Your task to perform on an android device: Search for Mexican restaurants on Maps Image 0: 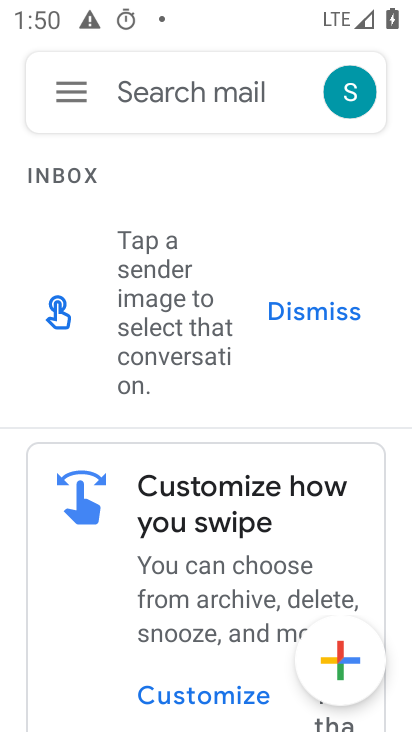
Step 0: press home button
Your task to perform on an android device: Search for Mexican restaurants on Maps Image 1: 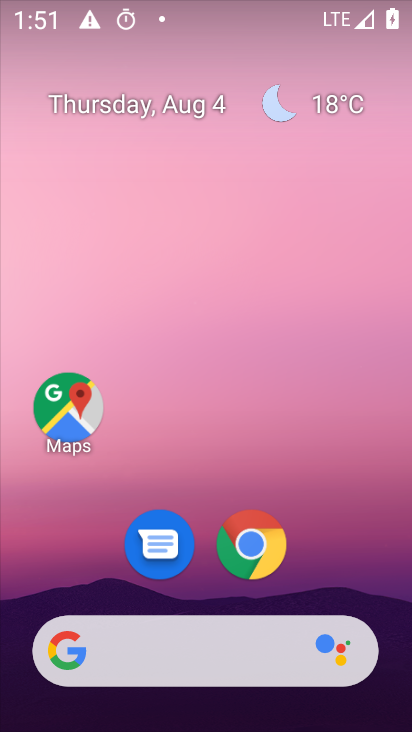
Step 1: click (43, 416)
Your task to perform on an android device: Search for Mexican restaurants on Maps Image 2: 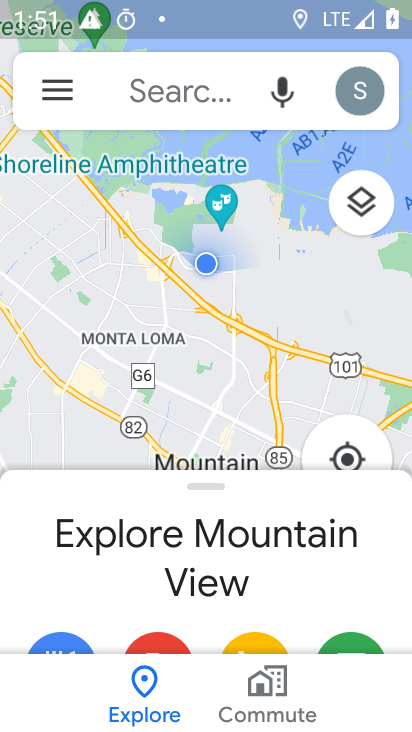
Step 2: click (177, 96)
Your task to perform on an android device: Search for Mexican restaurants on Maps Image 3: 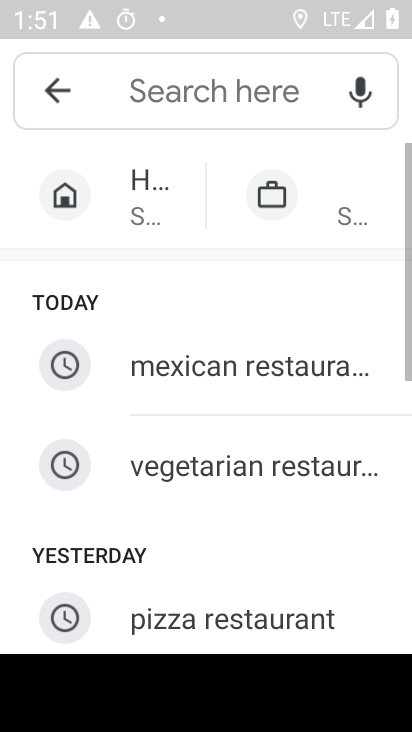
Step 3: type "Mexican restaurants"
Your task to perform on an android device: Search for Mexican restaurants on Maps Image 4: 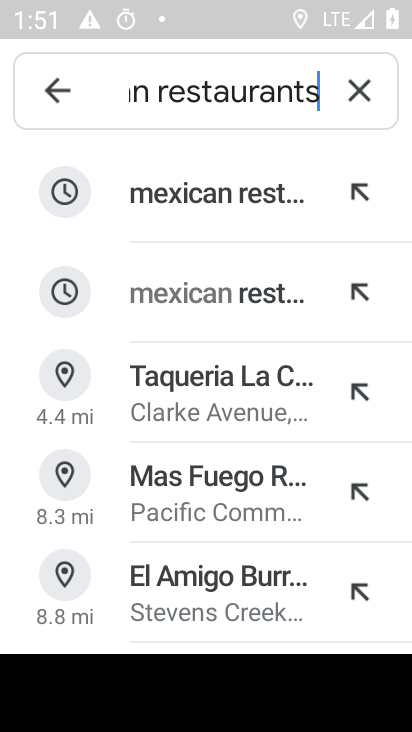
Step 4: click (212, 196)
Your task to perform on an android device: Search for Mexican restaurants on Maps Image 5: 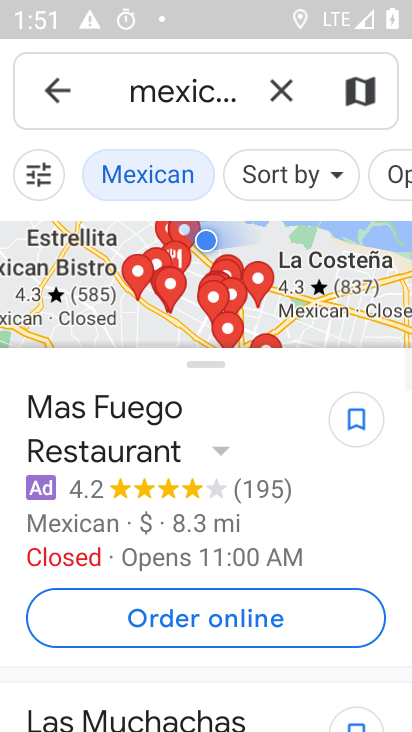
Step 5: task complete